Your task to perform on an android device: What's the latest video from Gameranx? Image 0: 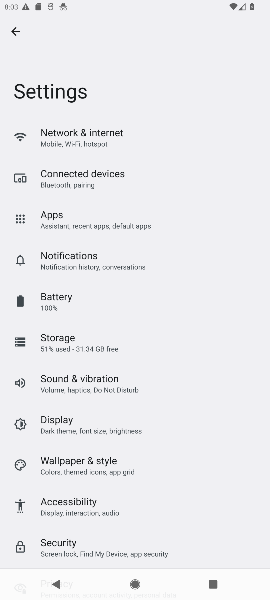
Step 0: press home button
Your task to perform on an android device: What's the latest video from Gameranx? Image 1: 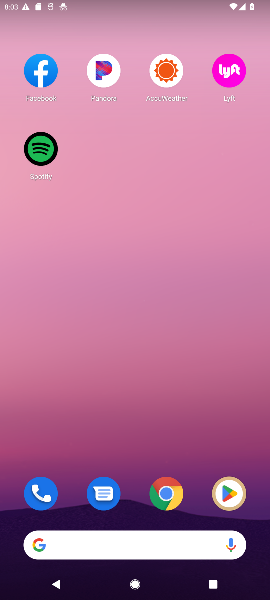
Step 1: click (108, 539)
Your task to perform on an android device: What's the latest video from Gameranx? Image 2: 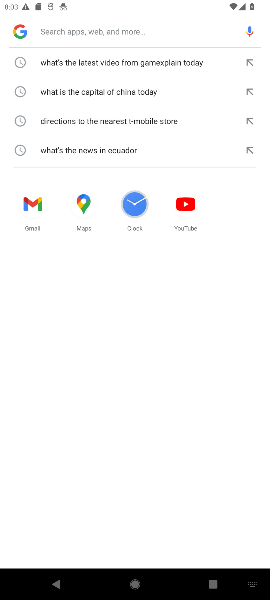
Step 2: type "What's the latest video from Gameranx?"
Your task to perform on an android device: What's the latest video from Gameranx? Image 3: 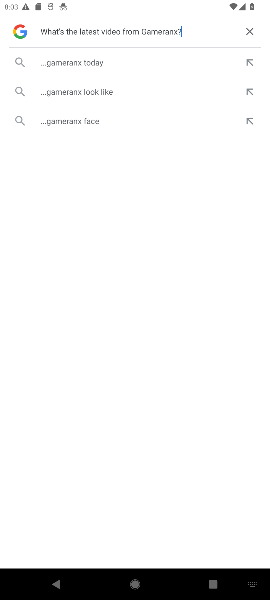
Step 3: click (97, 54)
Your task to perform on an android device: What's the latest video from Gameranx? Image 4: 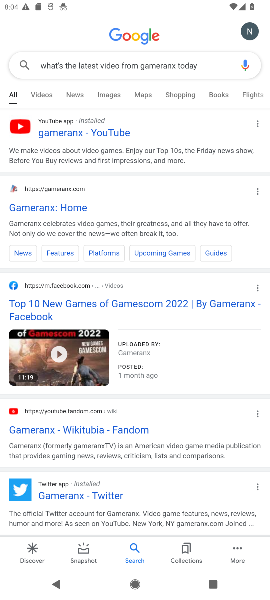
Step 4: task complete